Your task to perform on an android device: View the shopping cart on newegg.com. Search for "razer blackwidow" on newegg.com, select the first entry, add it to the cart, then select checkout. Image 0: 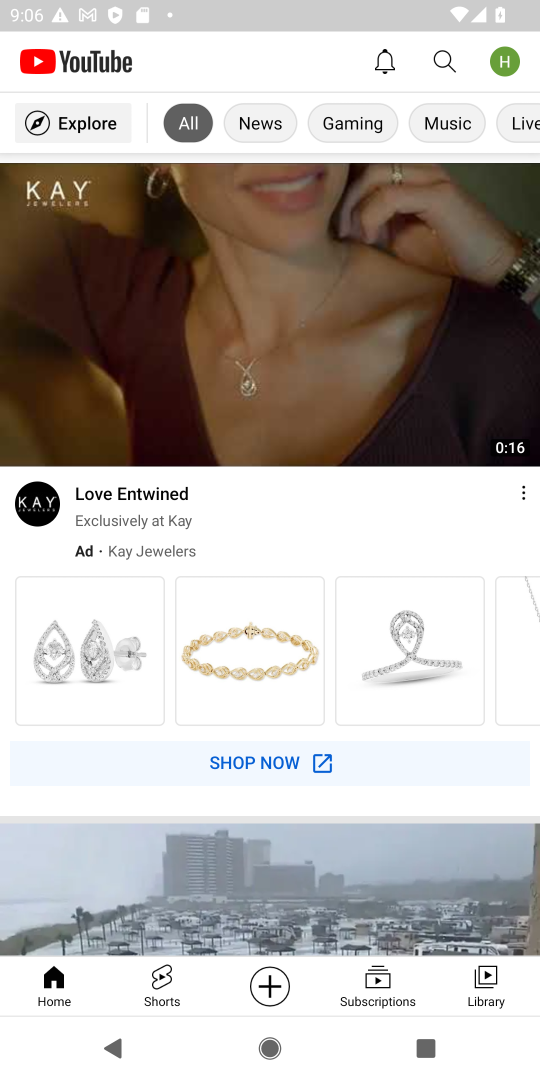
Step 0: press home button
Your task to perform on an android device: View the shopping cart on newegg.com. Search for "razer blackwidow" on newegg.com, select the first entry, add it to the cart, then select checkout. Image 1: 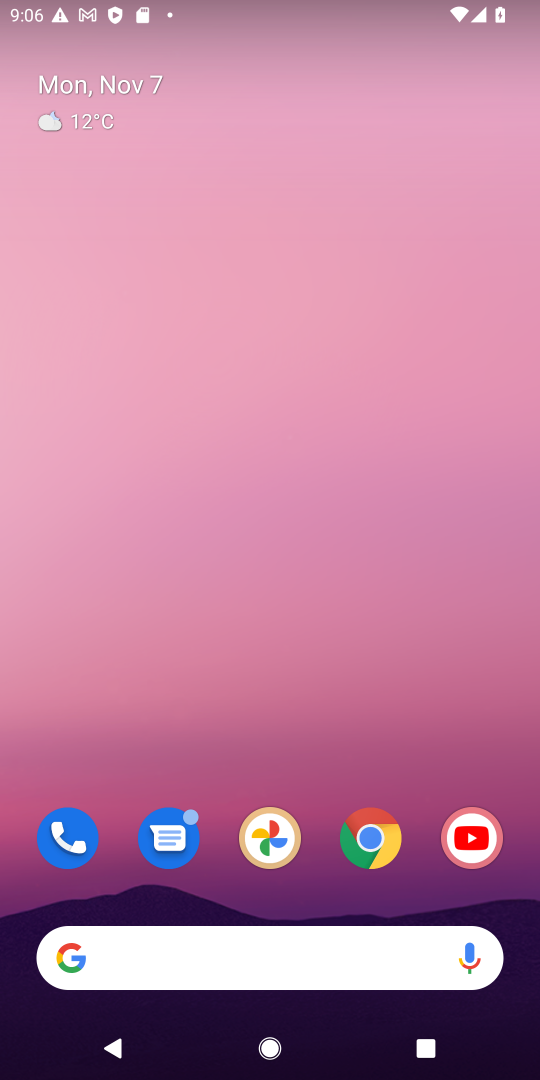
Step 1: click (371, 849)
Your task to perform on an android device: View the shopping cart on newegg.com. Search for "razer blackwidow" on newegg.com, select the first entry, add it to the cart, then select checkout. Image 2: 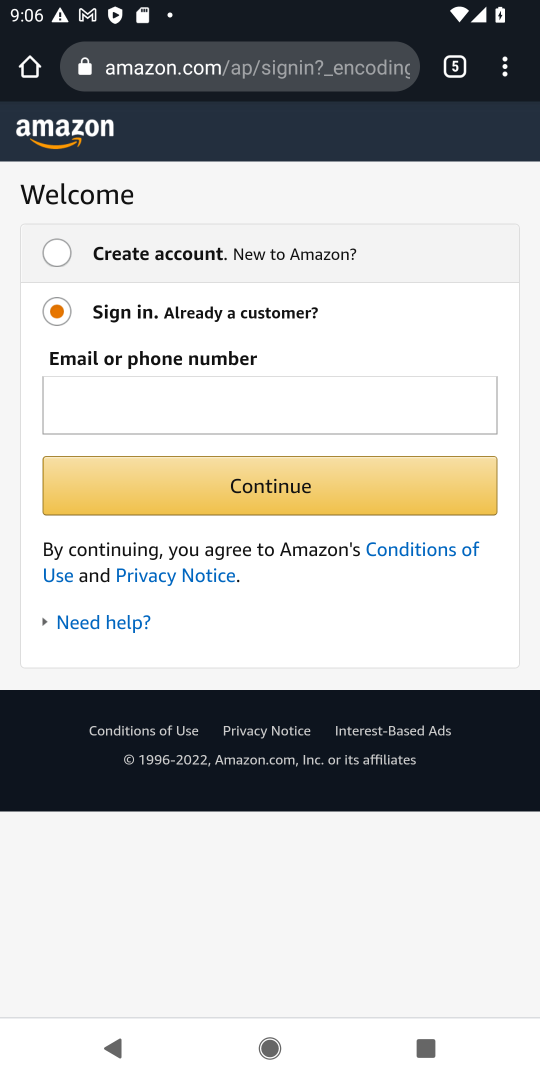
Step 2: click (455, 72)
Your task to perform on an android device: View the shopping cart on newegg.com. Search for "razer blackwidow" on newegg.com, select the first entry, add it to the cart, then select checkout. Image 3: 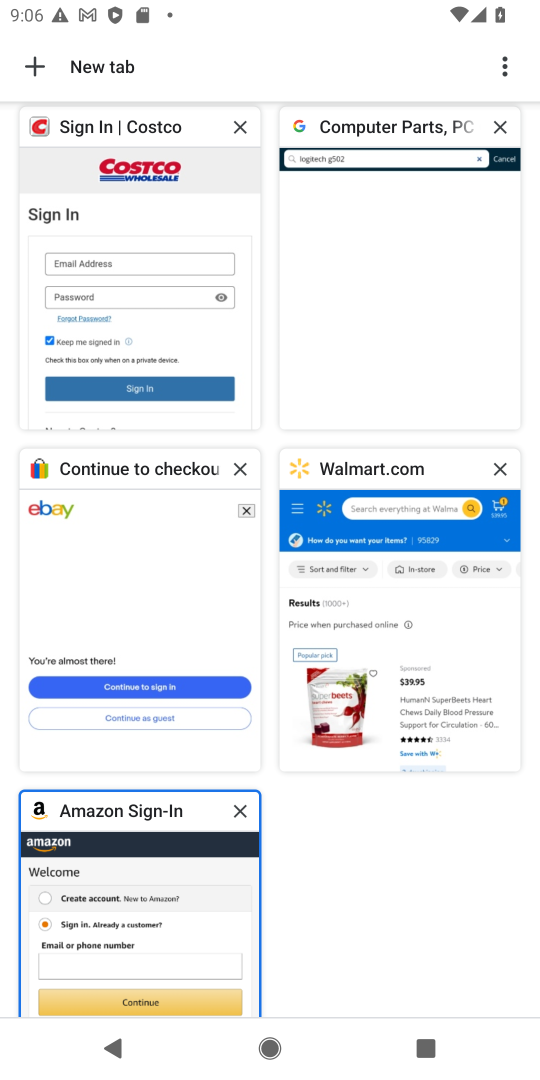
Step 3: click (36, 61)
Your task to perform on an android device: View the shopping cart on newegg.com. Search for "razer blackwidow" on newegg.com, select the first entry, add it to the cart, then select checkout. Image 4: 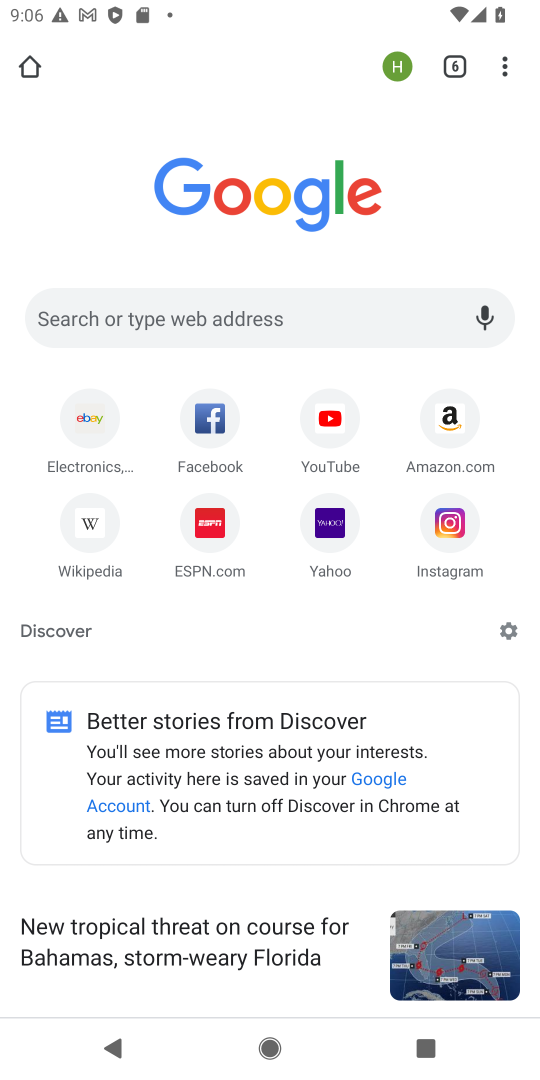
Step 4: click (174, 315)
Your task to perform on an android device: View the shopping cart on newegg.com. Search for "razer blackwidow" on newegg.com, select the first entry, add it to the cart, then select checkout. Image 5: 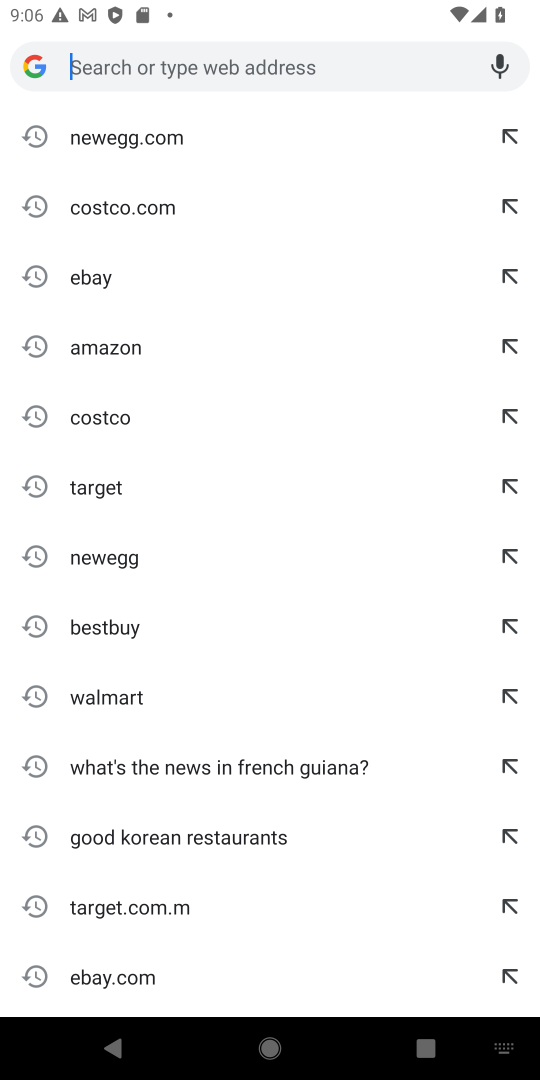
Step 5: click (132, 558)
Your task to perform on an android device: View the shopping cart on newegg.com. Search for "razer blackwidow" on newegg.com, select the first entry, add it to the cart, then select checkout. Image 6: 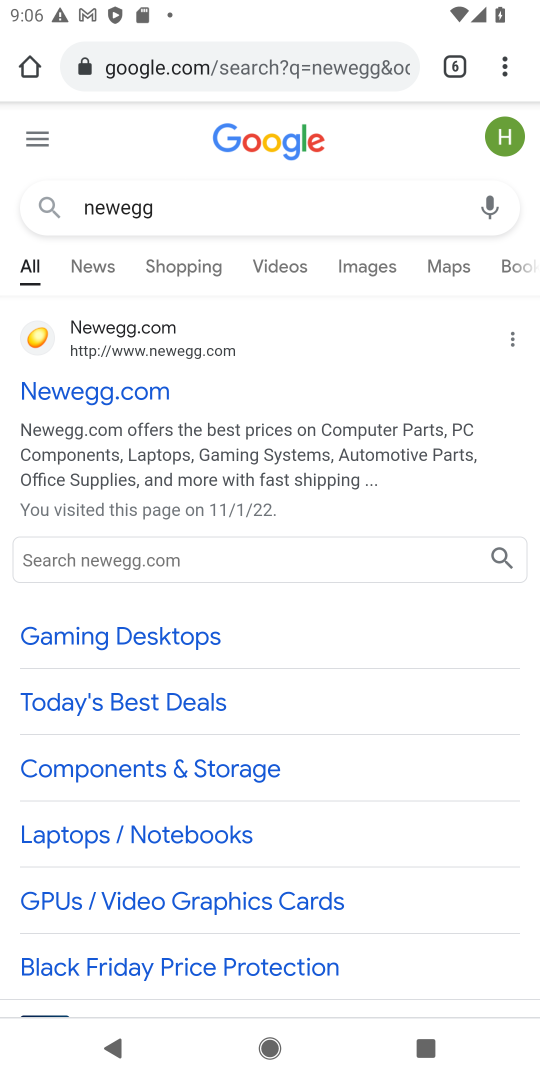
Step 6: click (186, 566)
Your task to perform on an android device: View the shopping cart on newegg.com. Search for "razer blackwidow" on newegg.com, select the first entry, add it to the cart, then select checkout. Image 7: 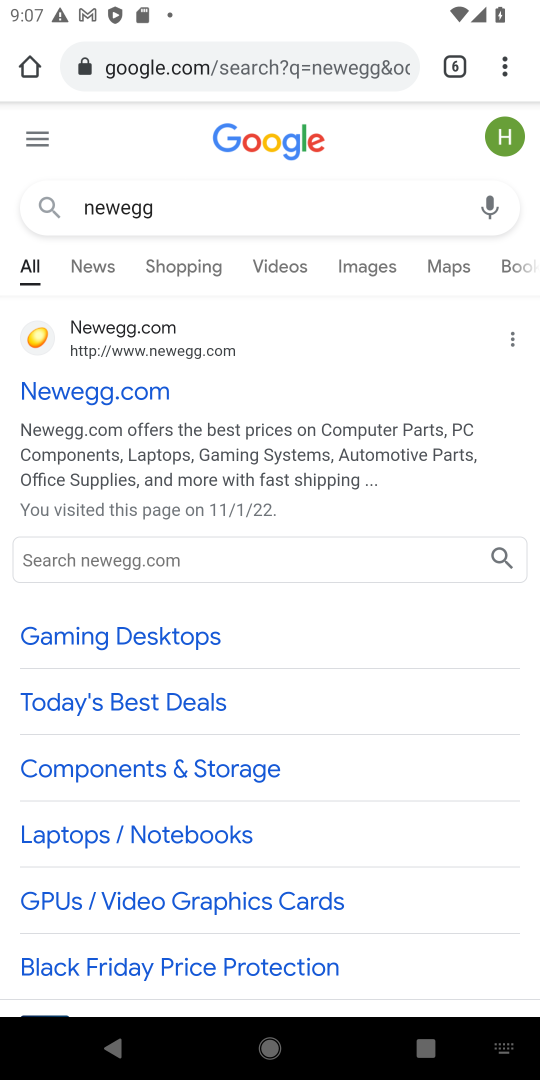
Step 7: type "razer blackwidow"
Your task to perform on an android device: View the shopping cart on newegg.com. Search for "razer blackwidow" on newegg.com, select the first entry, add it to the cart, then select checkout. Image 8: 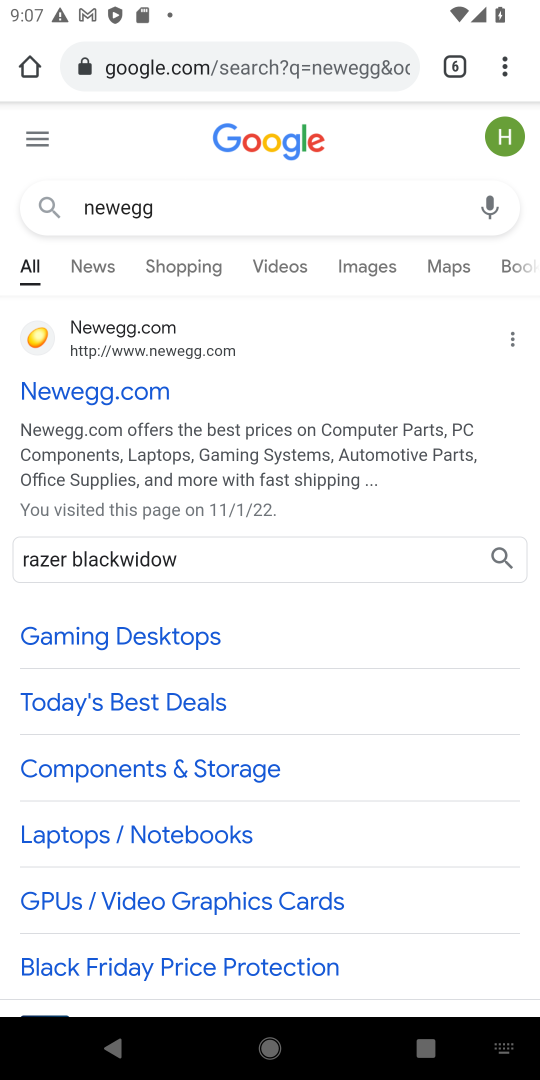
Step 8: click (494, 547)
Your task to perform on an android device: View the shopping cart on newegg.com. Search for "razer blackwidow" on newegg.com, select the first entry, add it to the cart, then select checkout. Image 9: 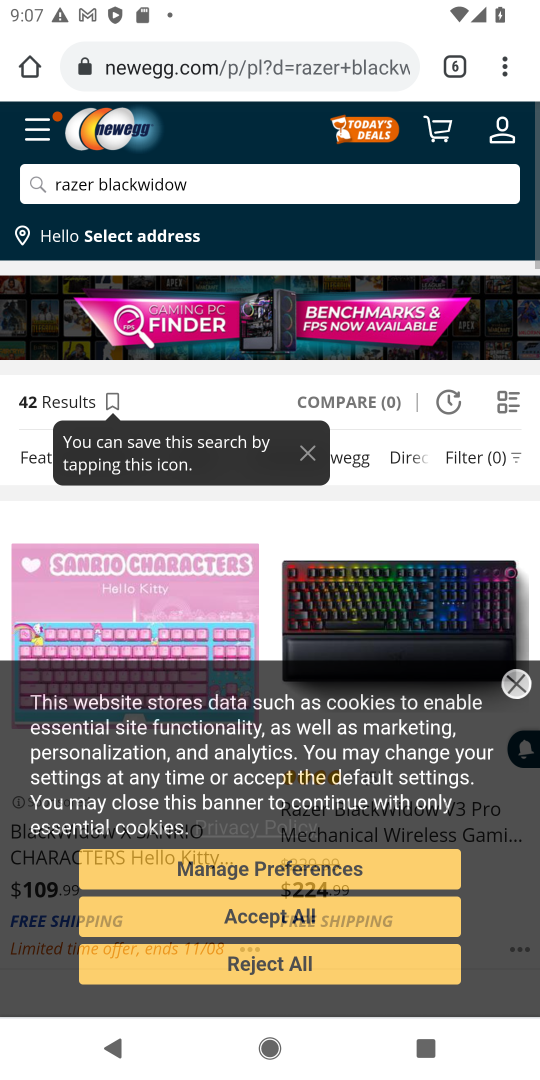
Step 9: click (364, 820)
Your task to perform on an android device: View the shopping cart on newegg.com. Search for "razer blackwidow" on newegg.com, select the first entry, add it to the cart, then select checkout. Image 10: 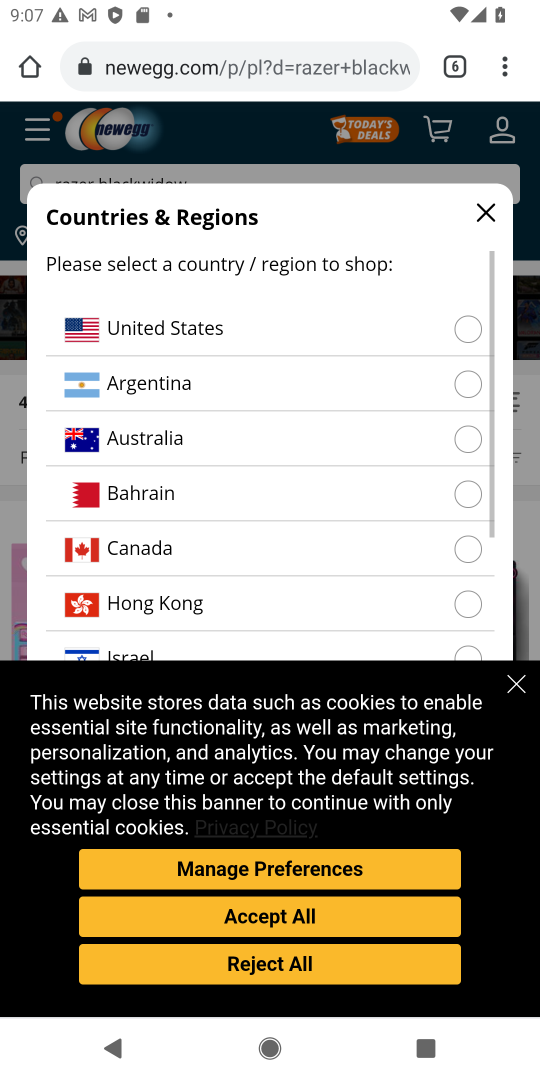
Step 10: click (265, 966)
Your task to perform on an android device: View the shopping cart on newegg.com. Search for "razer blackwidow" on newegg.com, select the first entry, add it to the cart, then select checkout. Image 11: 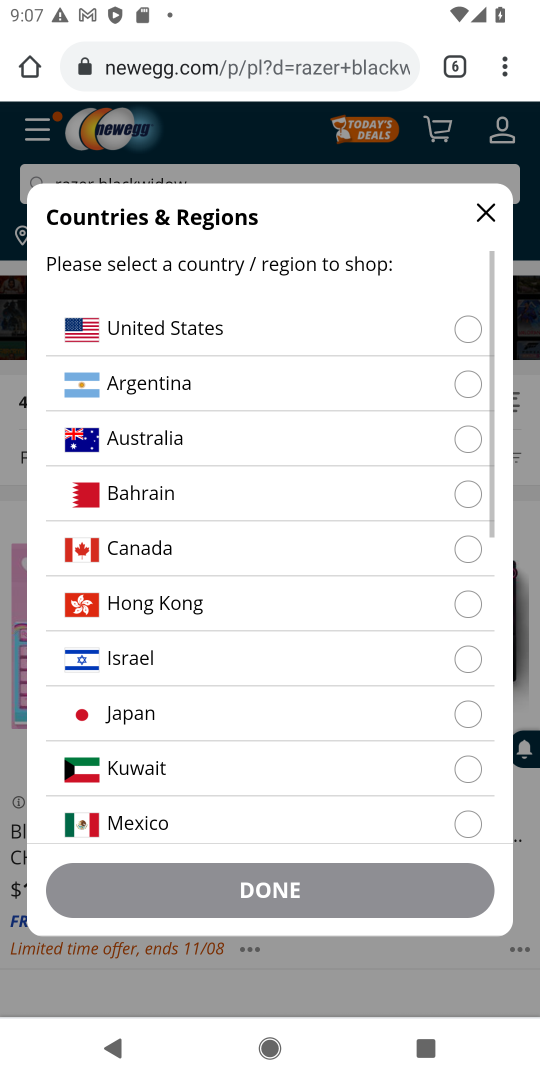
Step 11: click (477, 323)
Your task to perform on an android device: View the shopping cart on newegg.com. Search for "razer blackwidow" on newegg.com, select the first entry, add it to the cart, then select checkout. Image 12: 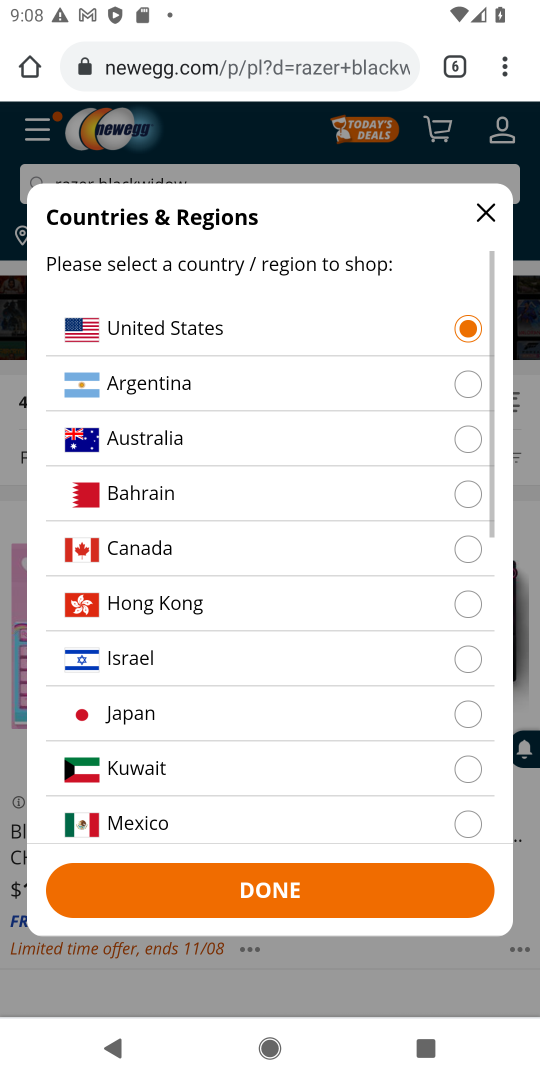
Step 12: click (375, 900)
Your task to perform on an android device: View the shopping cart on newegg.com. Search for "razer blackwidow" on newegg.com, select the first entry, add it to the cart, then select checkout. Image 13: 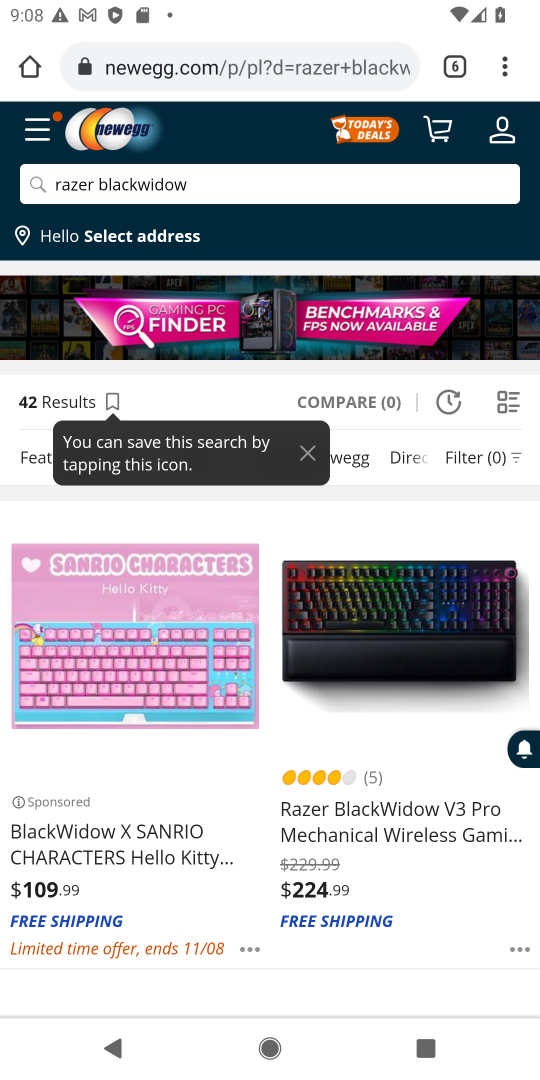
Step 13: drag from (337, 888) to (424, 435)
Your task to perform on an android device: View the shopping cart on newegg.com. Search for "razer blackwidow" on newegg.com, select the first entry, add it to the cart, then select checkout. Image 14: 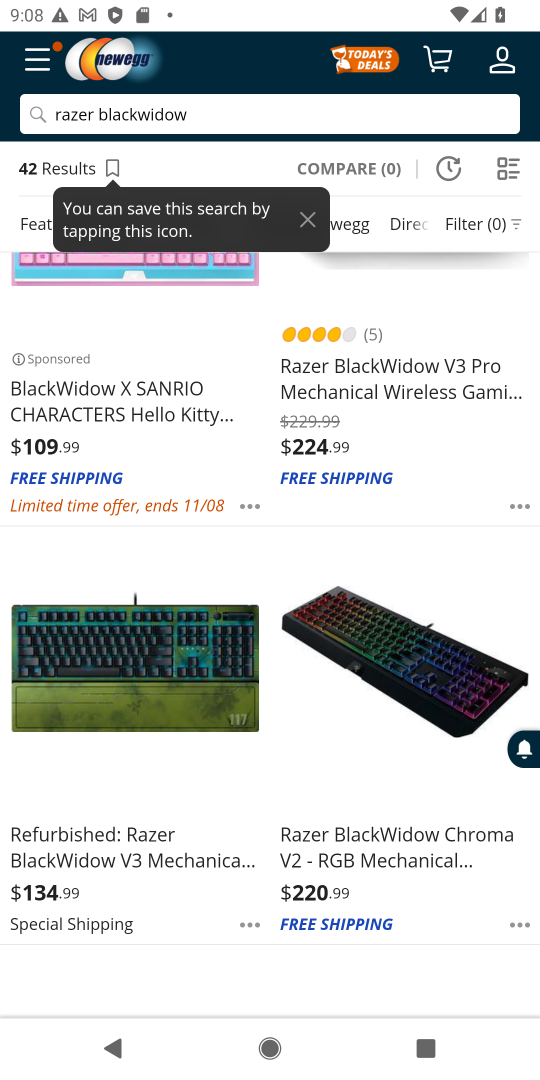
Step 14: click (413, 381)
Your task to perform on an android device: View the shopping cart on newegg.com. Search for "razer blackwidow" on newegg.com, select the first entry, add it to the cart, then select checkout. Image 15: 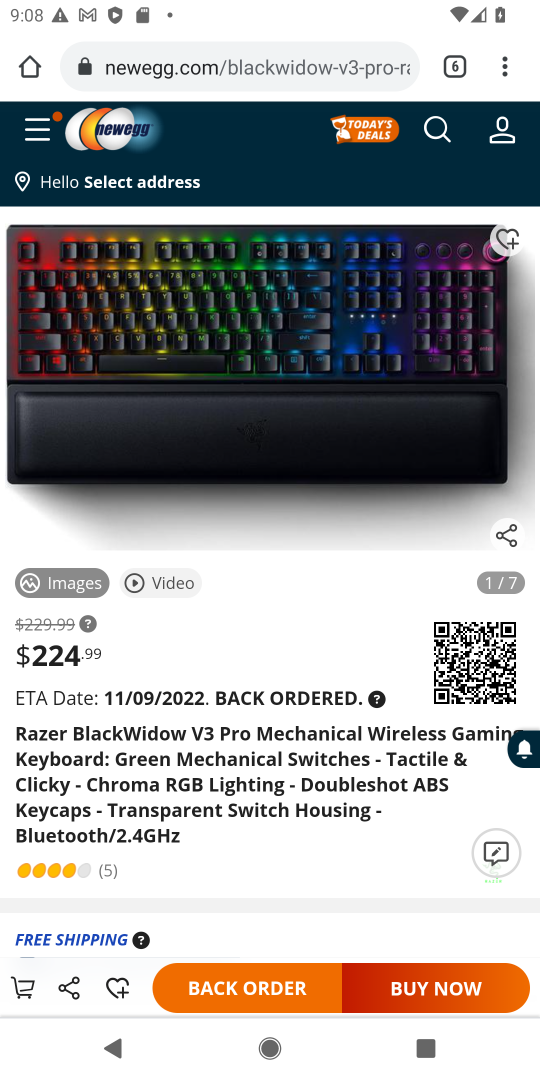
Step 15: click (250, 992)
Your task to perform on an android device: View the shopping cart on newegg.com. Search for "razer blackwidow" on newegg.com, select the first entry, add it to the cart, then select checkout. Image 16: 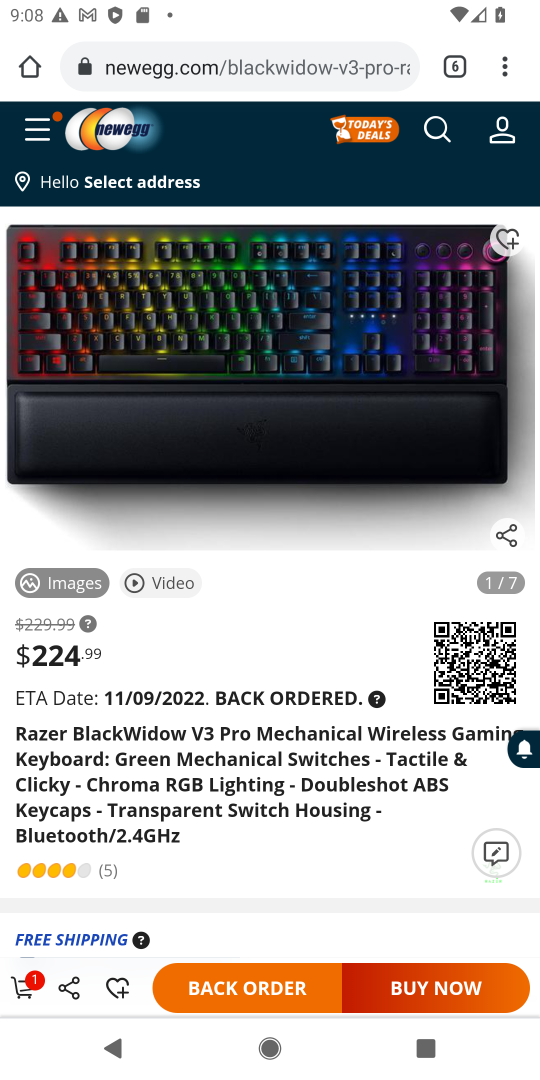
Step 16: task complete